Your task to perform on an android device: set an alarm Image 0: 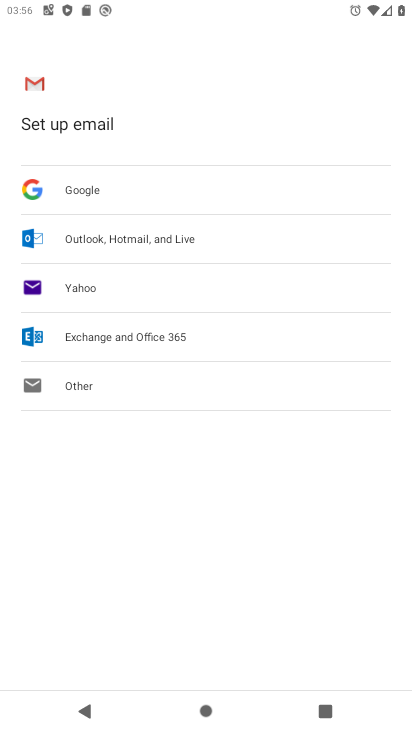
Step 0: press home button
Your task to perform on an android device: set an alarm Image 1: 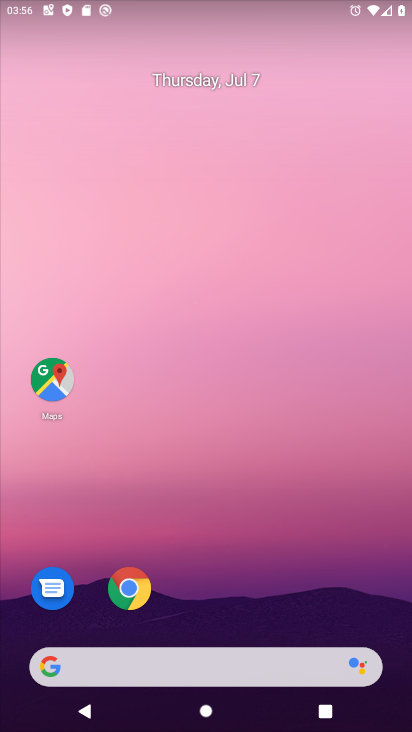
Step 1: drag from (135, 641) to (174, 247)
Your task to perform on an android device: set an alarm Image 2: 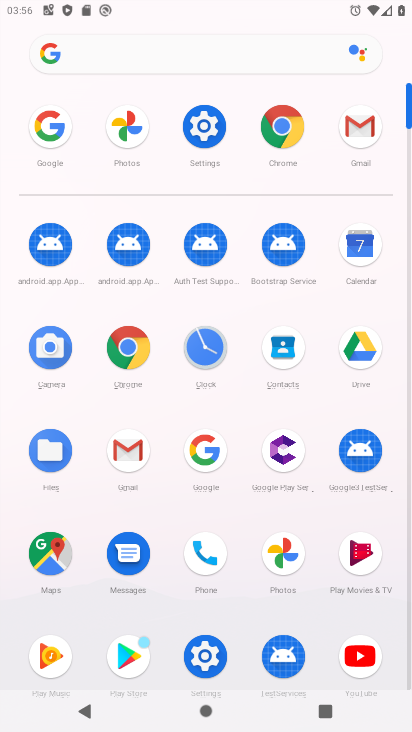
Step 2: click (207, 360)
Your task to perform on an android device: set an alarm Image 3: 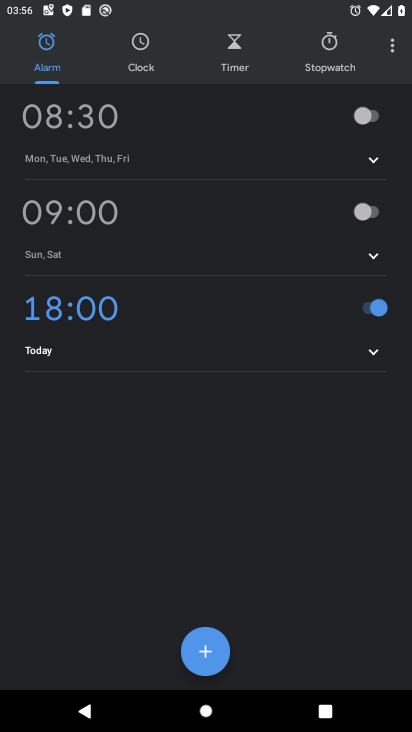
Step 3: task complete